Your task to perform on an android device: turn off translation in the chrome app Image 0: 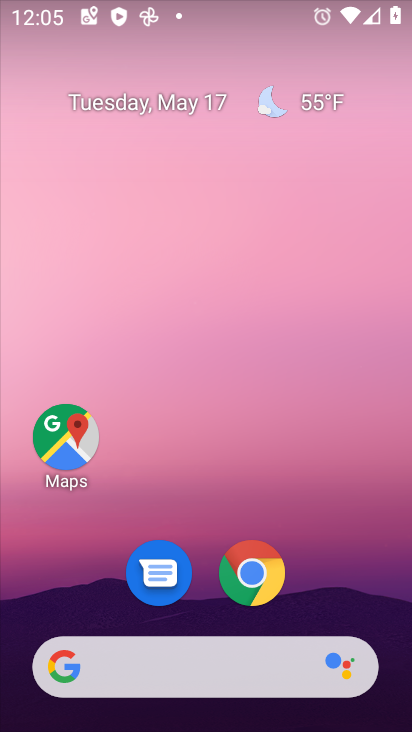
Step 0: drag from (384, 596) to (297, 201)
Your task to perform on an android device: turn off translation in the chrome app Image 1: 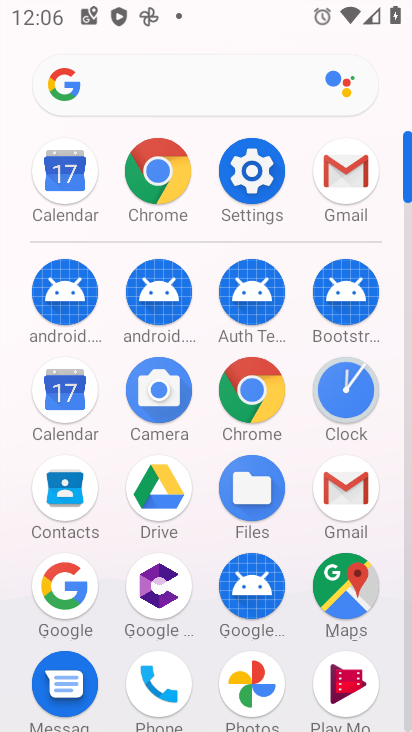
Step 1: click (173, 157)
Your task to perform on an android device: turn off translation in the chrome app Image 2: 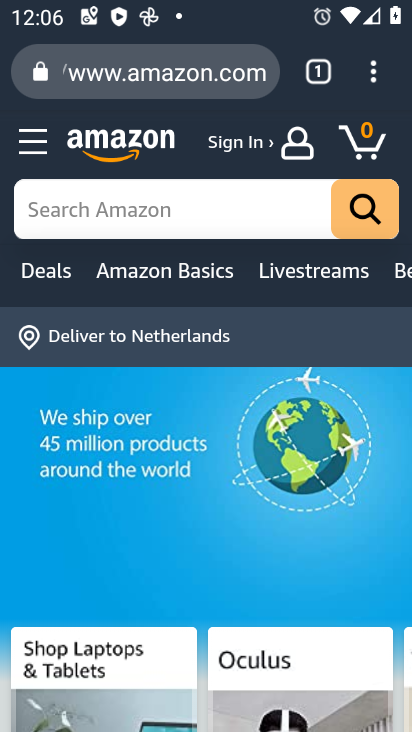
Step 2: click (375, 82)
Your task to perform on an android device: turn off translation in the chrome app Image 3: 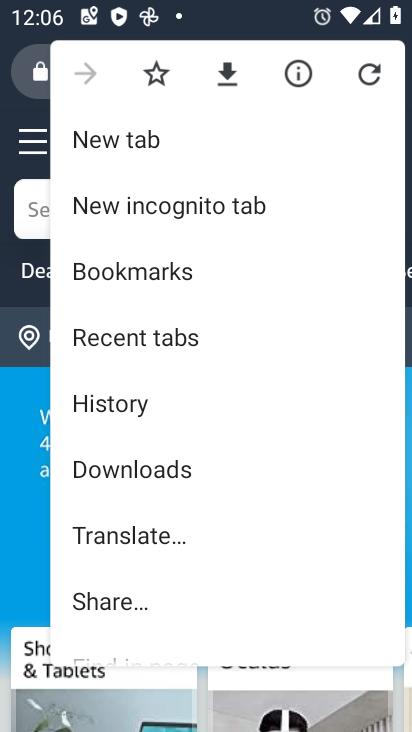
Step 3: drag from (311, 524) to (274, 289)
Your task to perform on an android device: turn off translation in the chrome app Image 4: 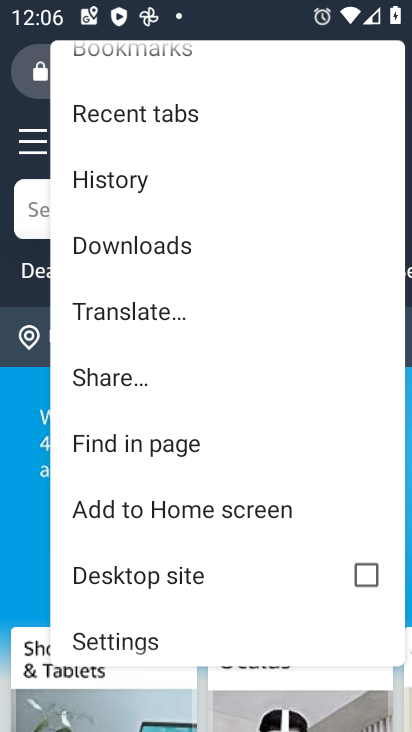
Step 4: drag from (216, 568) to (200, 360)
Your task to perform on an android device: turn off translation in the chrome app Image 5: 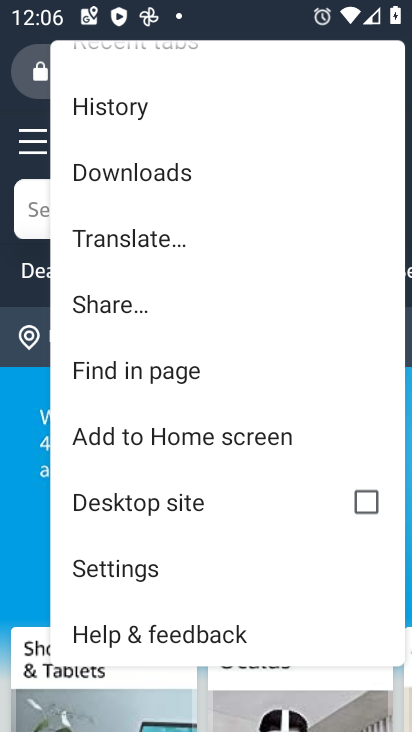
Step 5: click (182, 566)
Your task to perform on an android device: turn off translation in the chrome app Image 6: 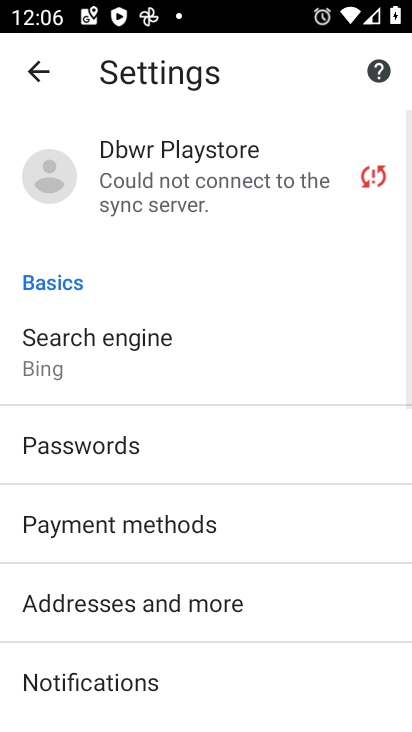
Step 6: drag from (214, 599) to (182, 358)
Your task to perform on an android device: turn off translation in the chrome app Image 7: 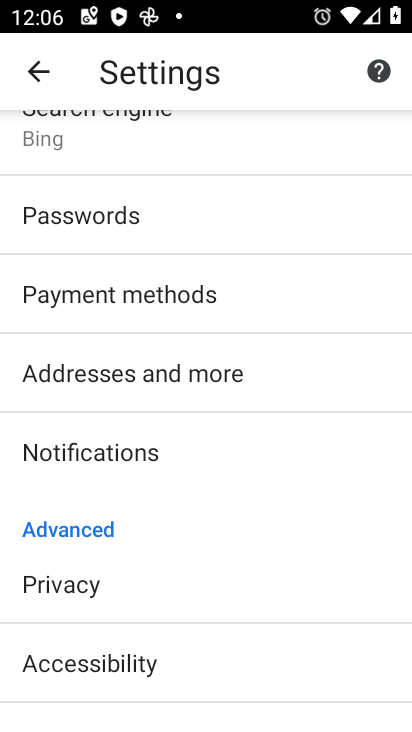
Step 7: drag from (166, 566) to (156, 325)
Your task to perform on an android device: turn off translation in the chrome app Image 8: 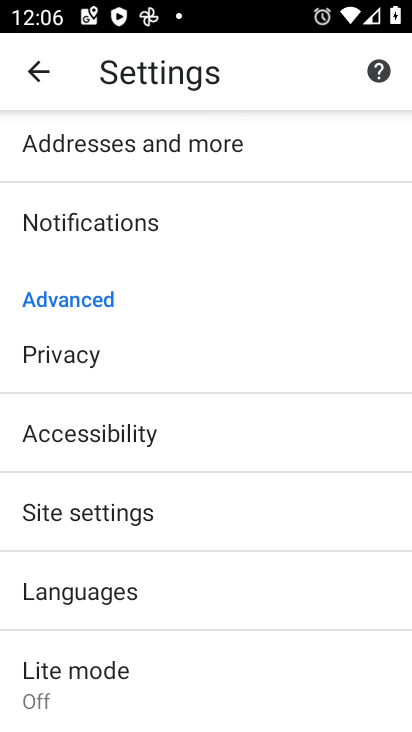
Step 8: click (143, 594)
Your task to perform on an android device: turn off translation in the chrome app Image 9: 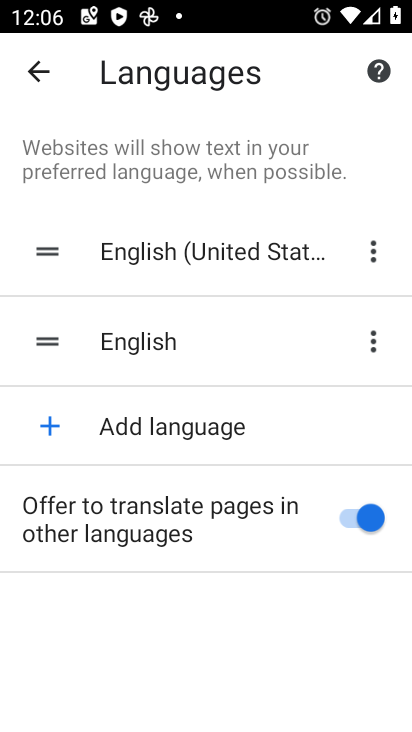
Step 9: click (348, 522)
Your task to perform on an android device: turn off translation in the chrome app Image 10: 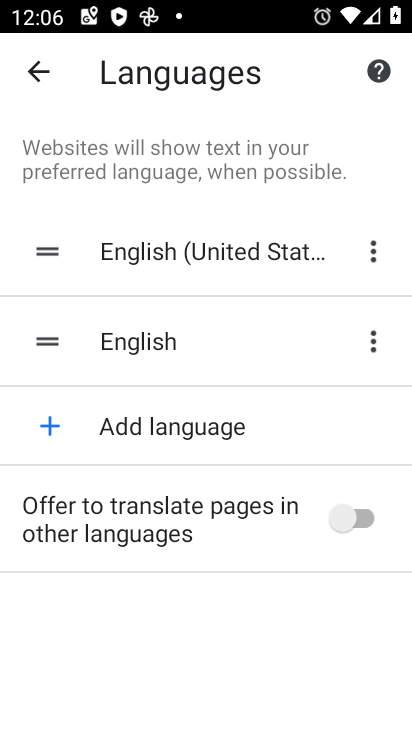
Step 10: task complete